Your task to perform on an android device: See recent photos Image 0: 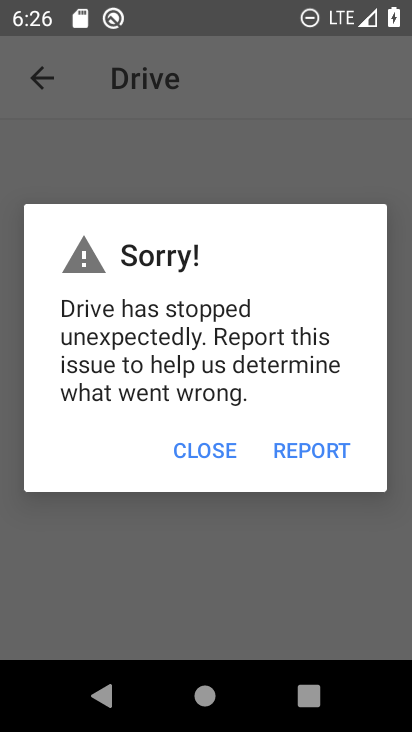
Step 0: press home button
Your task to perform on an android device: See recent photos Image 1: 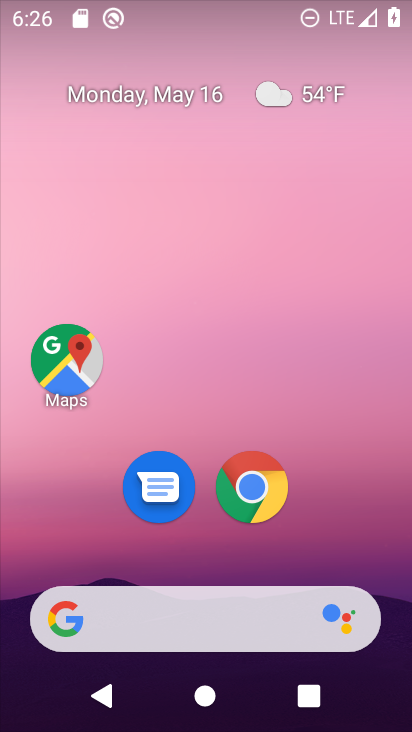
Step 1: drag from (174, 549) to (173, 191)
Your task to perform on an android device: See recent photos Image 2: 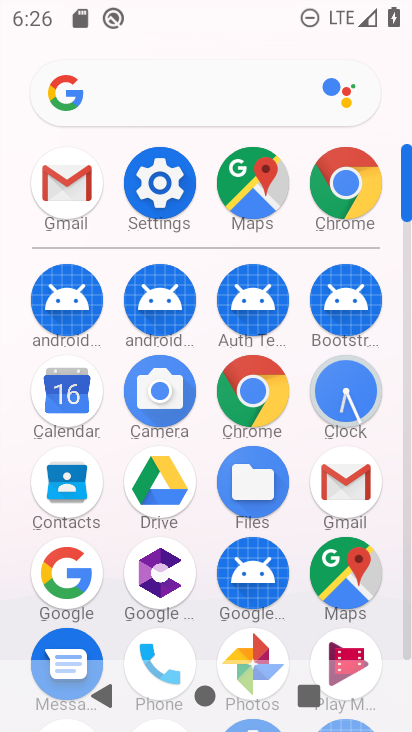
Step 2: drag from (194, 587) to (205, 284)
Your task to perform on an android device: See recent photos Image 3: 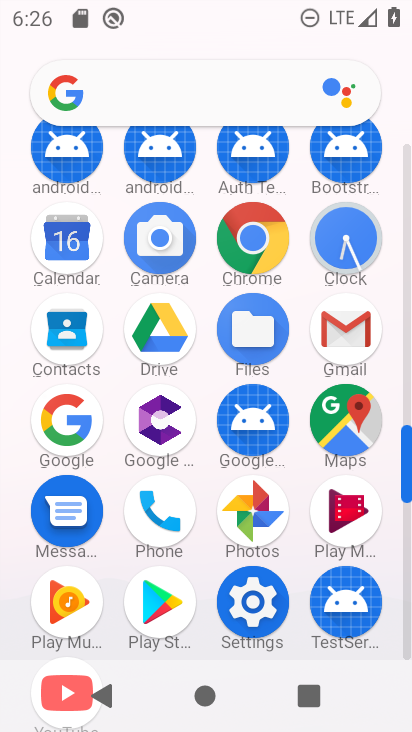
Step 3: click (247, 519)
Your task to perform on an android device: See recent photos Image 4: 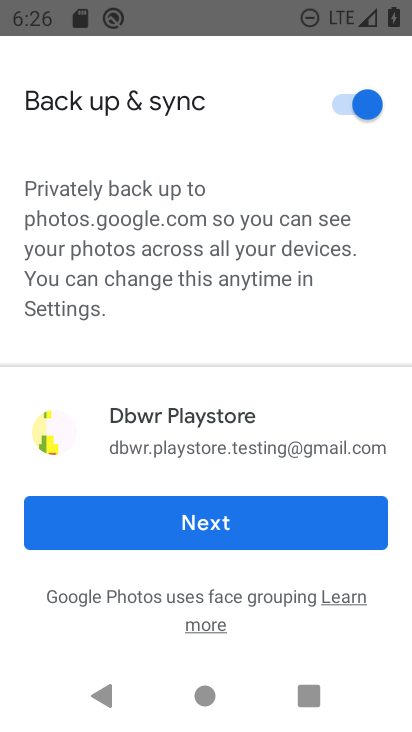
Step 4: click (217, 523)
Your task to perform on an android device: See recent photos Image 5: 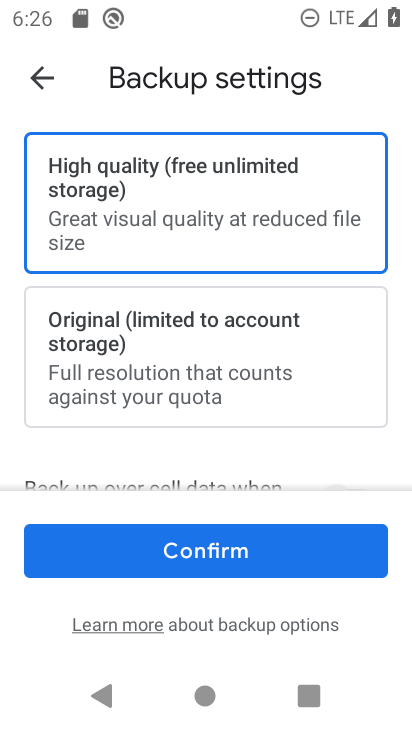
Step 5: click (214, 553)
Your task to perform on an android device: See recent photos Image 6: 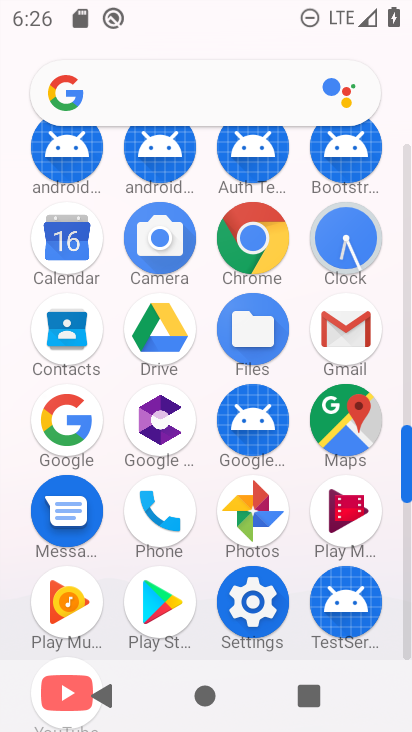
Step 6: click (253, 517)
Your task to perform on an android device: See recent photos Image 7: 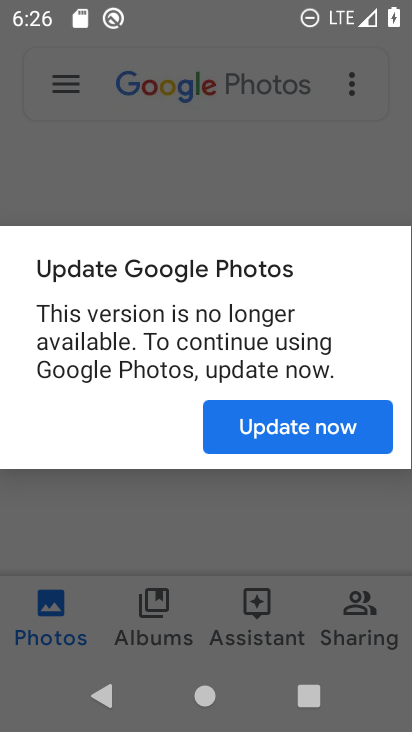
Step 7: click (255, 428)
Your task to perform on an android device: See recent photos Image 8: 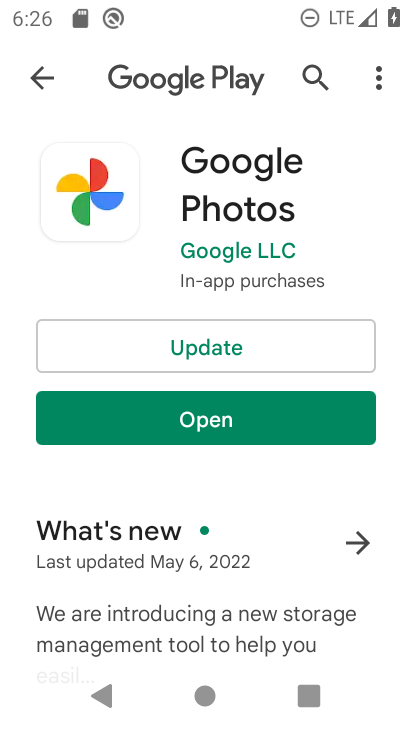
Step 8: click (211, 352)
Your task to perform on an android device: See recent photos Image 9: 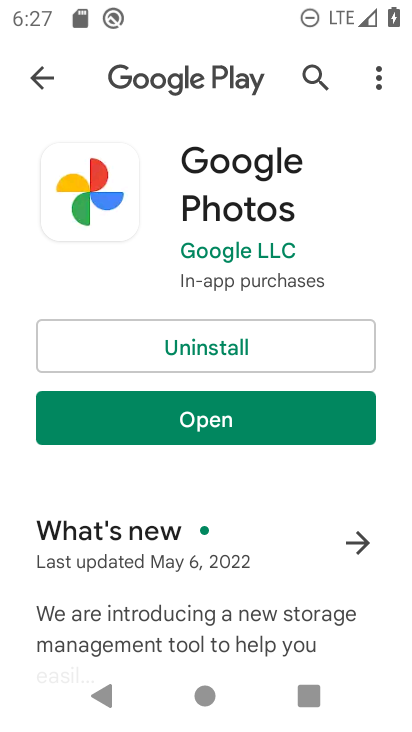
Step 9: click (206, 417)
Your task to perform on an android device: See recent photos Image 10: 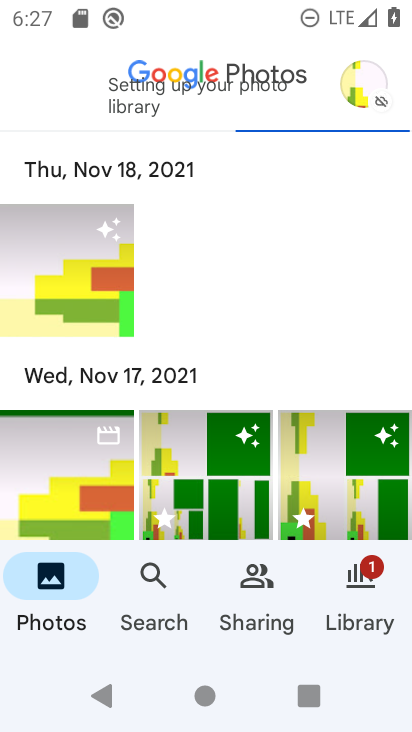
Step 10: click (94, 265)
Your task to perform on an android device: See recent photos Image 11: 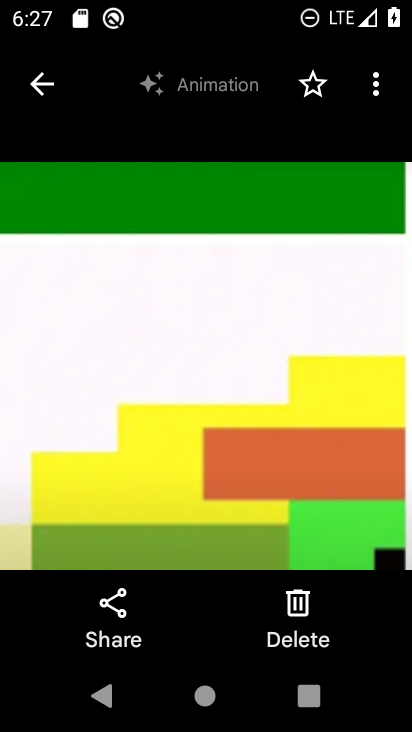
Step 11: task complete